Your task to perform on an android device: Go to privacy settings Image 0: 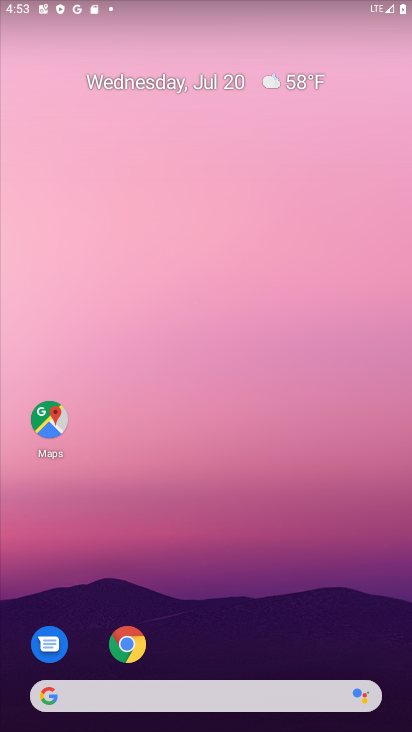
Step 0: drag from (233, 637) to (340, 34)
Your task to perform on an android device: Go to privacy settings Image 1: 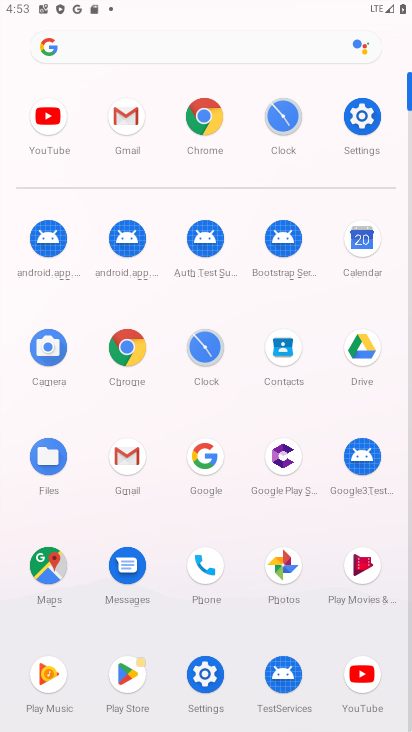
Step 1: click (362, 115)
Your task to perform on an android device: Go to privacy settings Image 2: 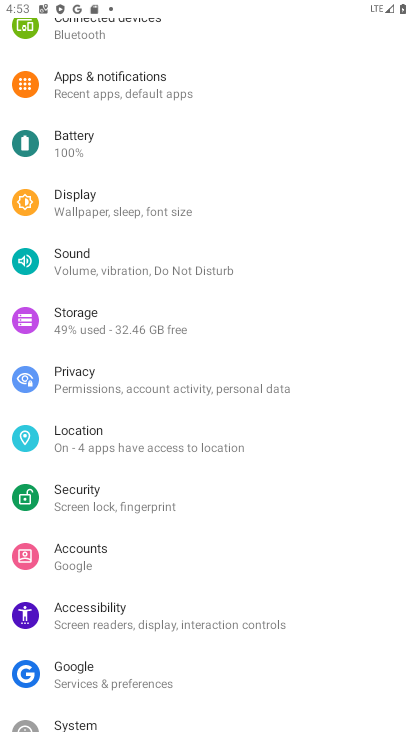
Step 2: click (73, 373)
Your task to perform on an android device: Go to privacy settings Image 3: 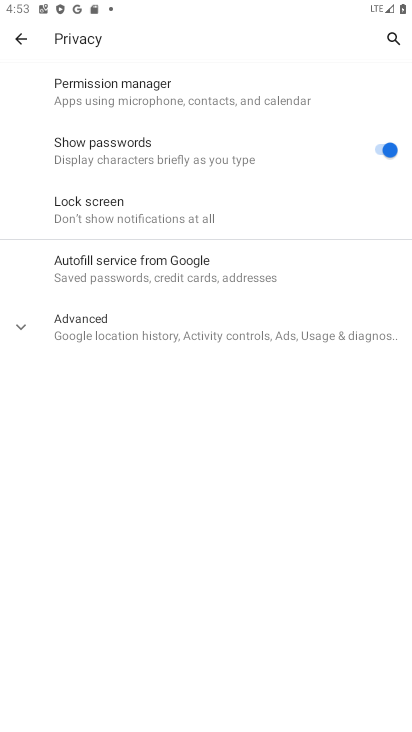
Step 3: task complete